Your task to perform on an android device: Open calendar and show me the second week of next month Image 0: 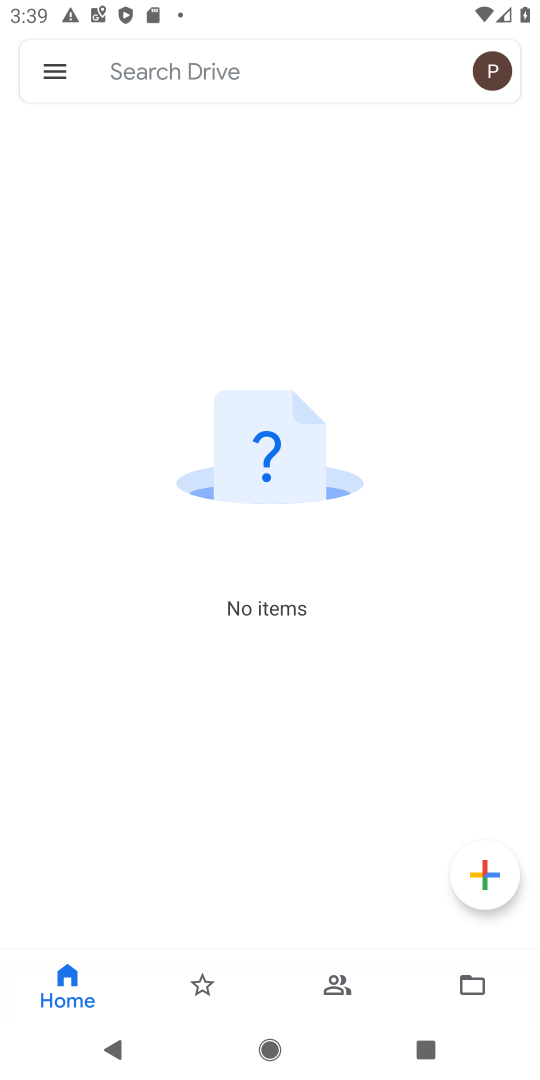
Step 0: press back button
Your task to perform on an android device: Open calendar and show me the second week of next month Image 1: 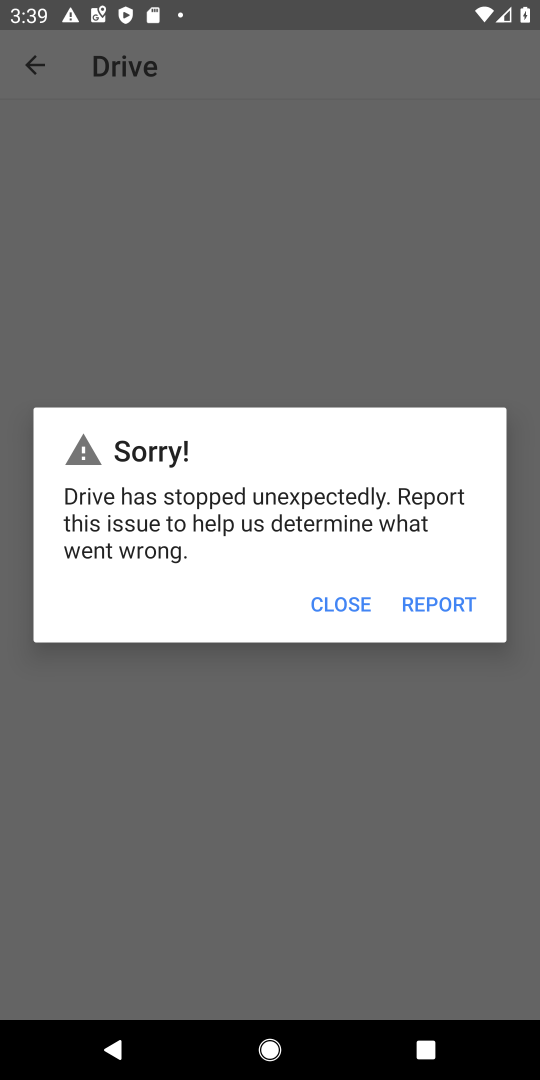
Step 1: press back button
Your task to perform on an android device: Open calendar and show me the second week of next month Image 2: 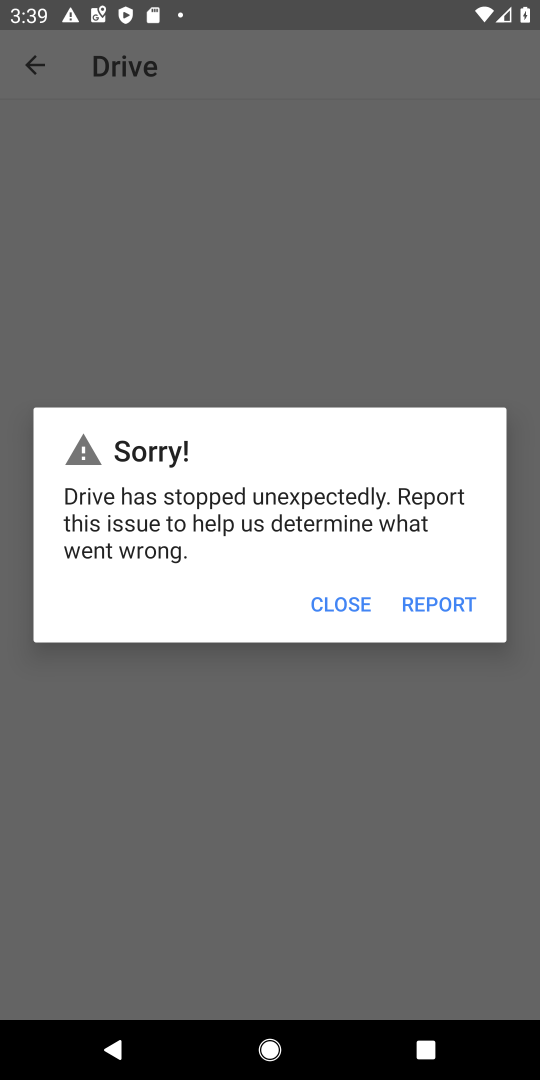
Step 2: press home button
Your task to perform on an android device: Open calendar and show me the second week of next month Image 3: 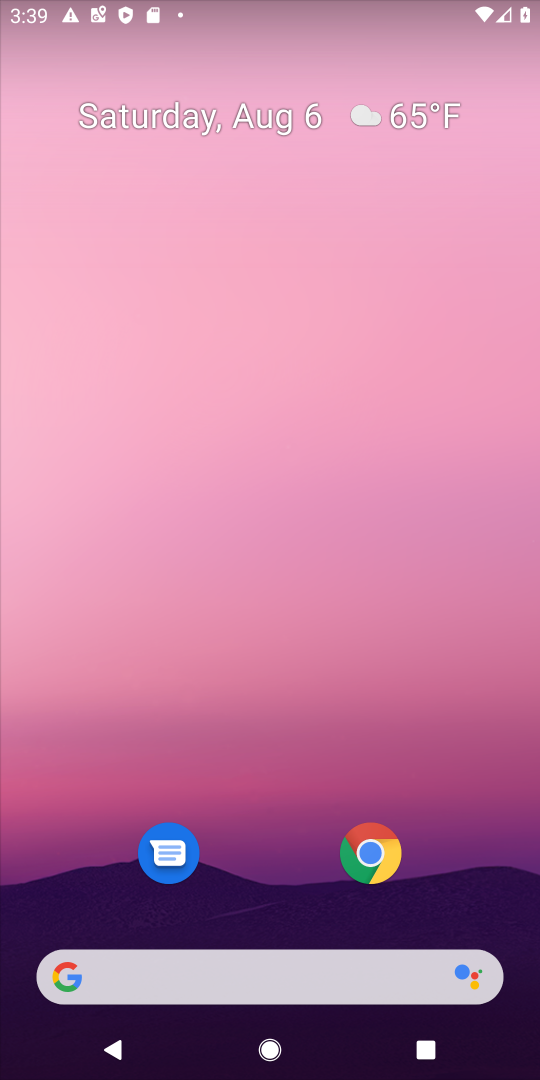
Step 3: drag from (268, 894) to (392, 39)
Your task to perform on an android device: Open calendar and show me the second week of next month Image 4: 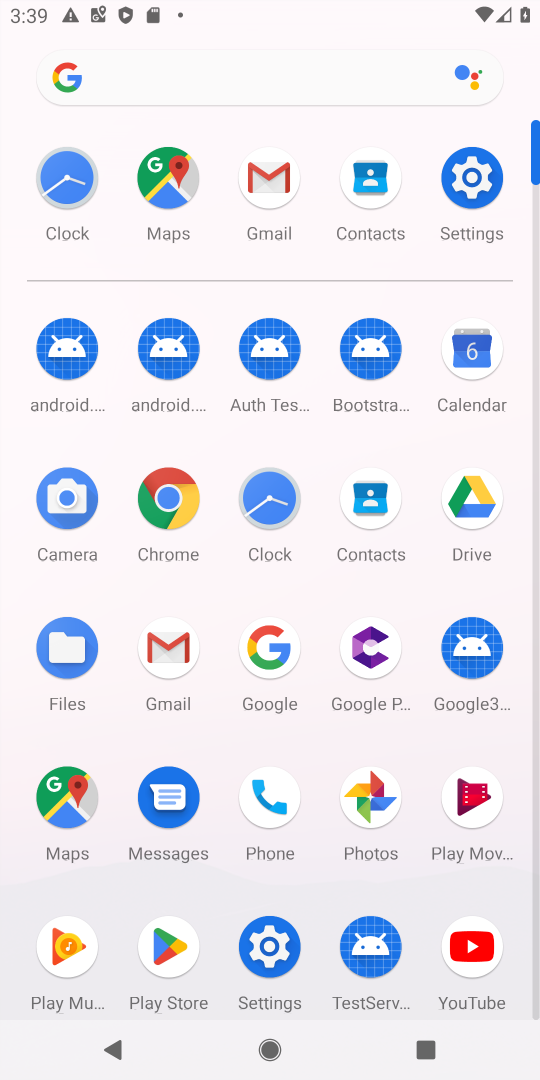
Step 4: click (467, 354)
Your task to perform on an android device: Open calendar and show me the second week of next month Image 5: 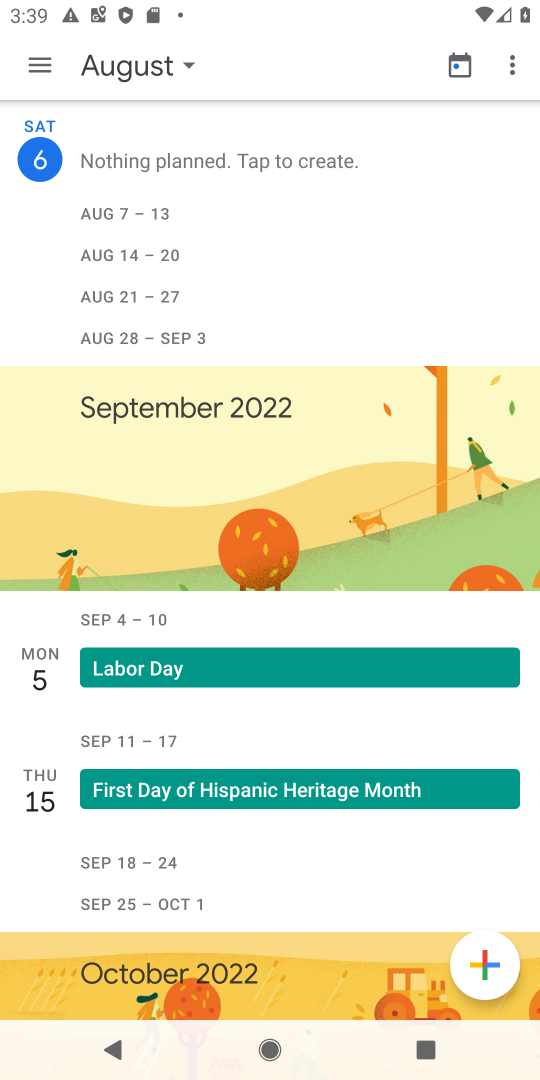
Step 5: click (163, 76)
Your task to perform on an android device: Open calendar and show me the second week of next month Image 6: 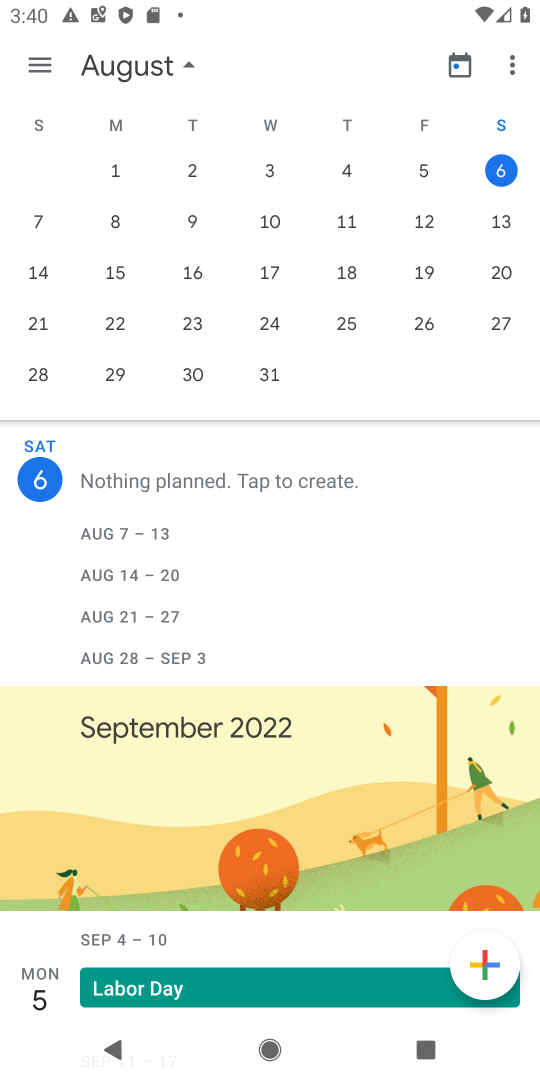
Step 6: drag from (499, 222) to (134, 197)
Your task to perform on an android device: Open calendar and show me the second week of next month Image 7: 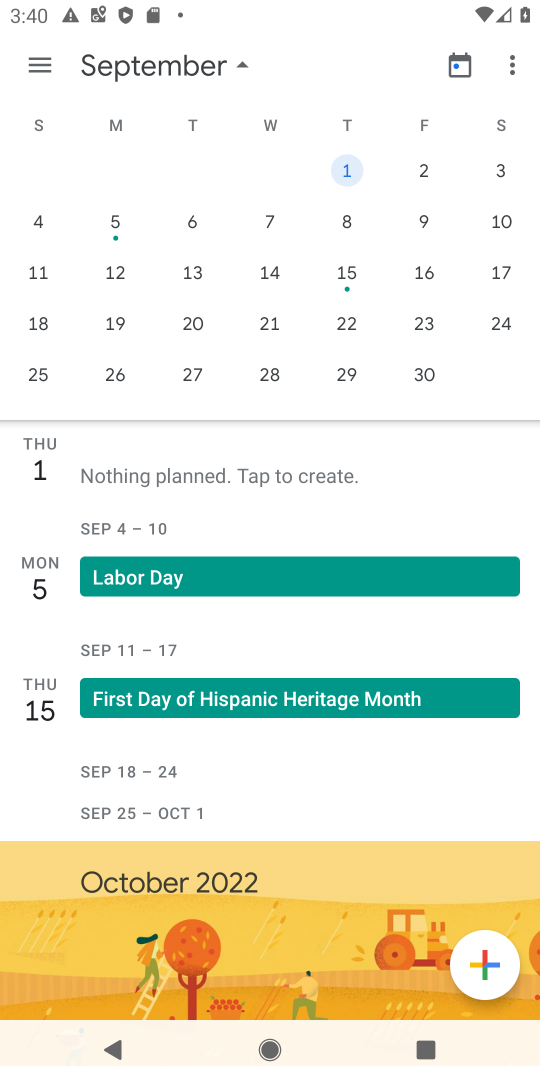
Step 7: click (118, 219)
Your task to perform on an android device: Open calendar and show me the second week of next month Image 8: 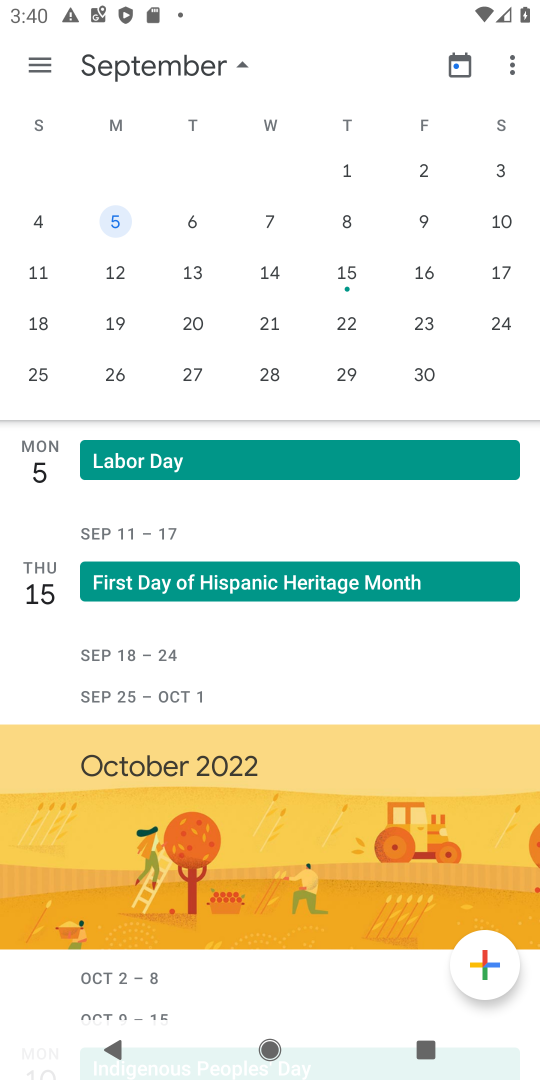
Step 8: task complete